Your task to perform on an android device: turn off smart reply in the gmail app Image 0: 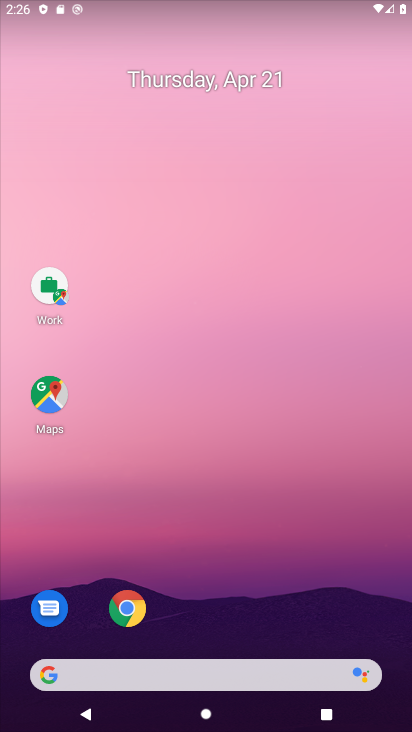
Step 0: drag from (240, 522) to (241, 303)
Your task to perform on an android device: turn off smart reply in the gmail app Image 1: 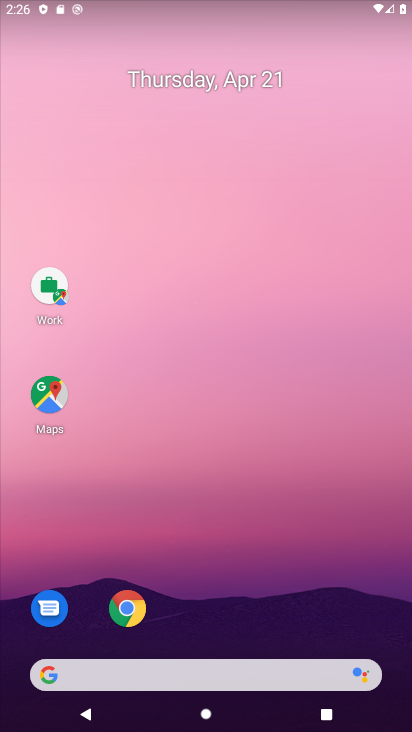
Step 1: drag from (279, 597) to (286, 238)
Your task to perform on an android device: turn off smart reply in the gmail app Image 2: 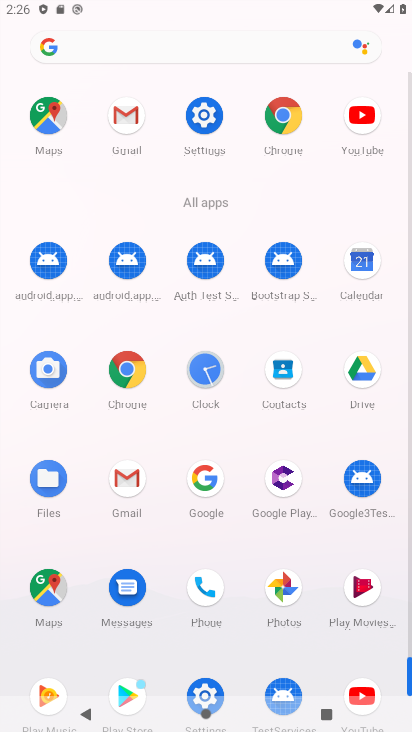
Step 2: drag from (246, 594) to (224, 314)
Your task to perform on an android device: turn off smart reply in the gmail app Image 3: 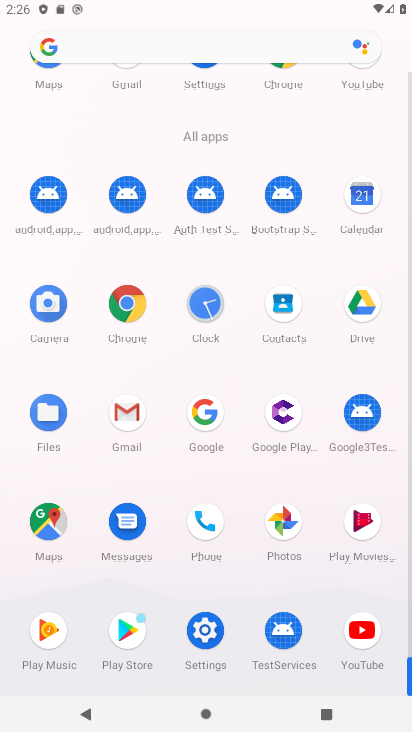
Step 3: click (128, 414)
Your task to perform on an android device: turn off smart reply in the gmail app Image 4: 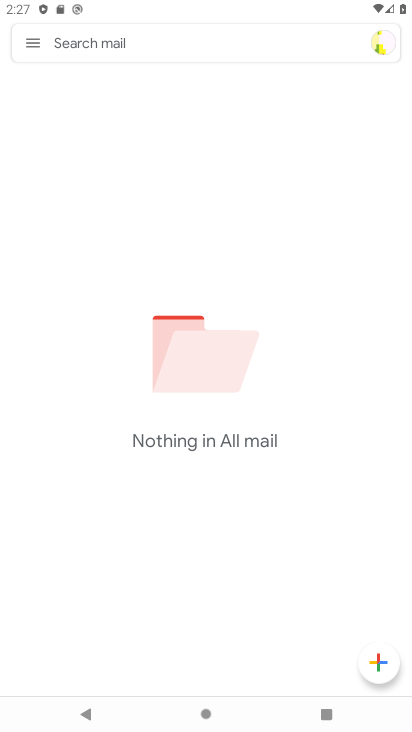
Step 4: click (37, 41)
Your task to perform on an android device: turn off smart reply in the gmail app Image 5: 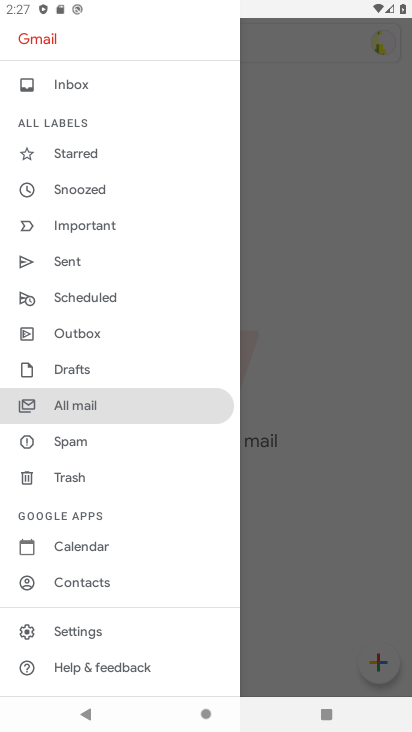
Step 5: click (99, 633)
Your task to perform on an android device: turn off smart reply in the gmail app Image 6: 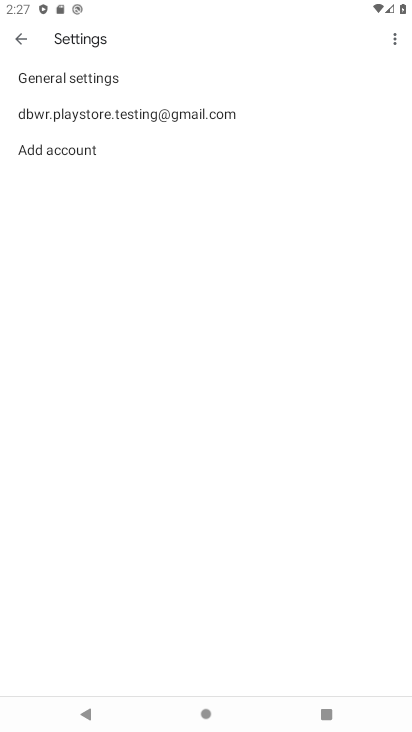
Step 6: click (114, 116)
Your task to perform on an android device: turn off smart reply in the gmail app Image 7: 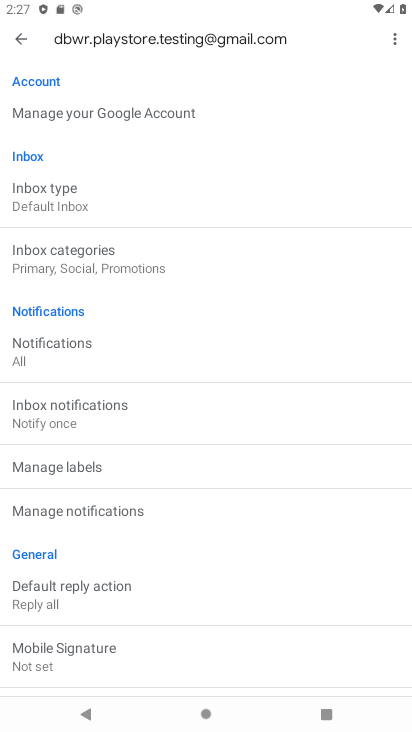
Step 7: drag from (120, 638) to (231, 232)
Your task to perform on an android device: turn off smart reply in the gmail app Image 8: 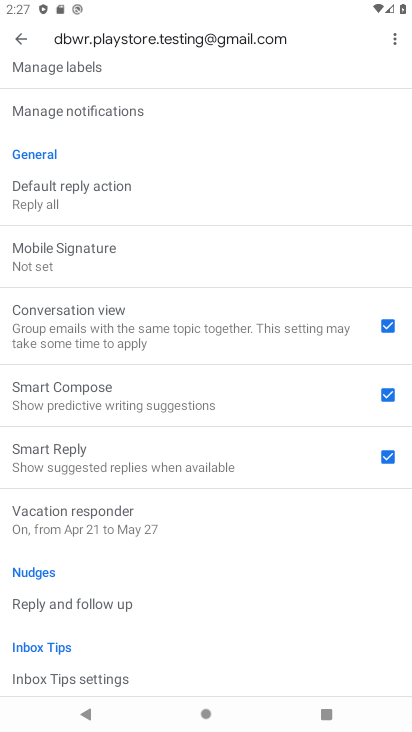
Step 8: drag from (123, 644) to (159, 269)
Your task to perform on an android device: turn off smart reply in the gmail app Image 9: 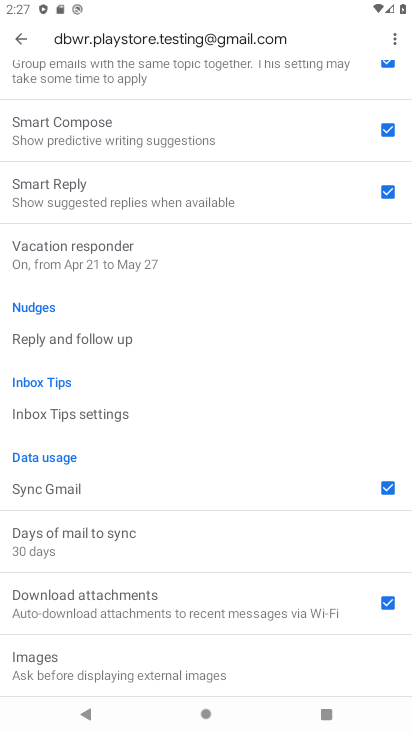
Step 9: click (387, 196)
Your task to perform on an android device: turn off smart reply in the gmail app Image 10: 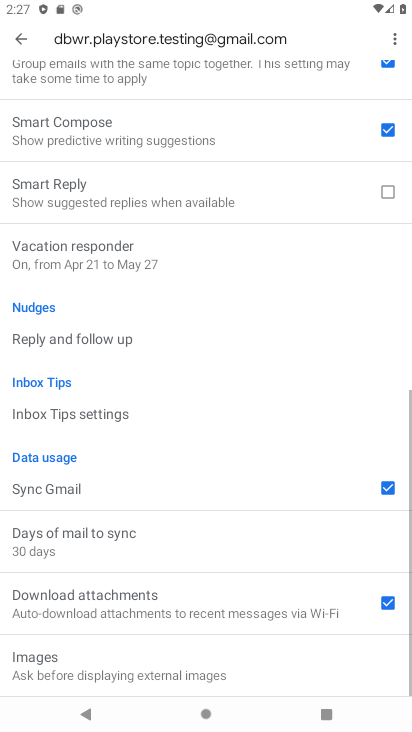
Step 10: task complete